Your task to perform on an android device: Go to Google Image 0: 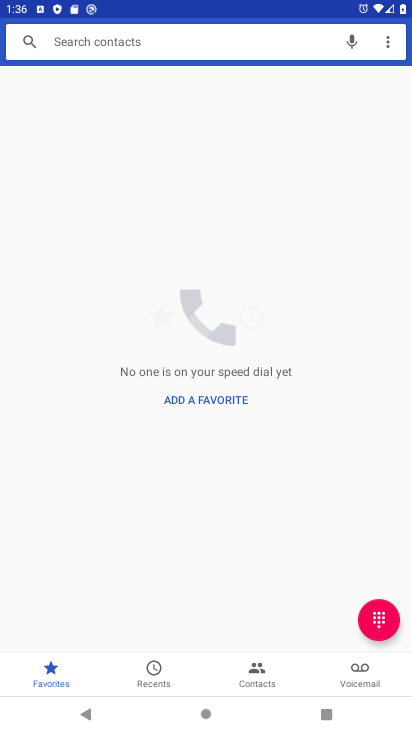
Step 0: press home button
Your task to perform on an android device: Go to Google Image 1: 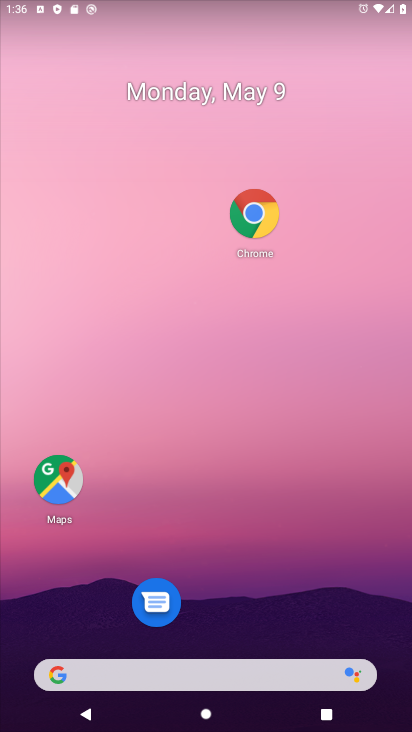
Step 1: click (345, 522)
Your task to perform on an android device: Go to Google Image 2: 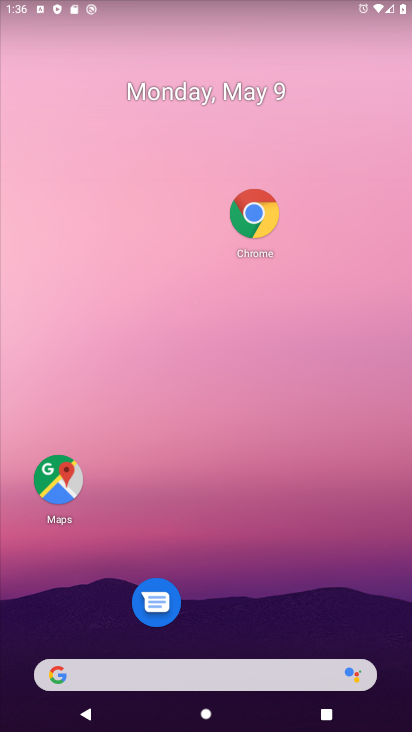
Step 2: click (221, 668)
Your task to perform on an android device: Go to Google Image 3: 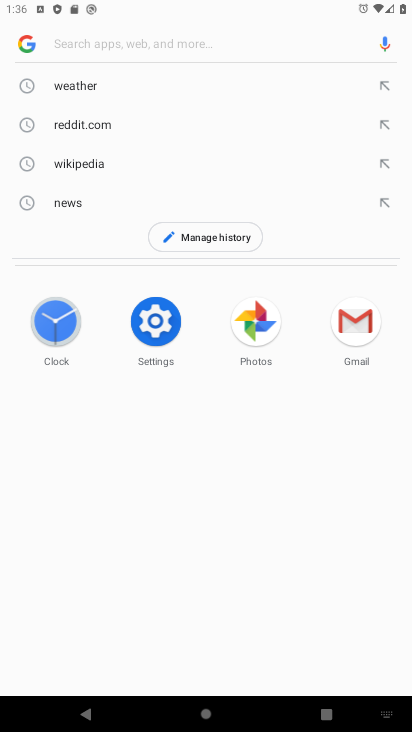
Step 3: type "google.com"
Your task to perform on an android device: Go to Google Image 4: 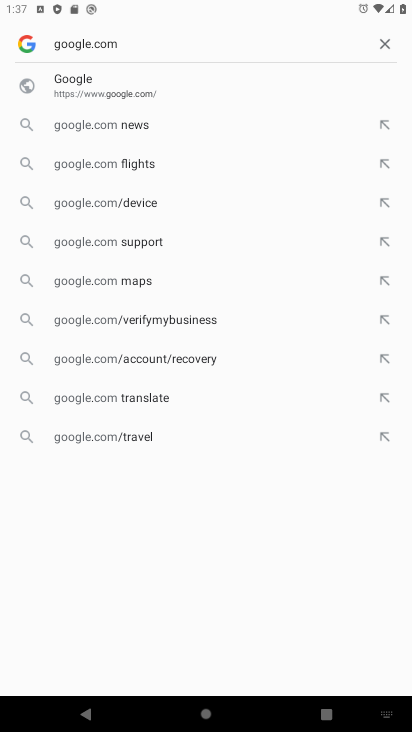
Step 4: click (237, 96)
Your task to perform on an android device: Go to Google Image 5: 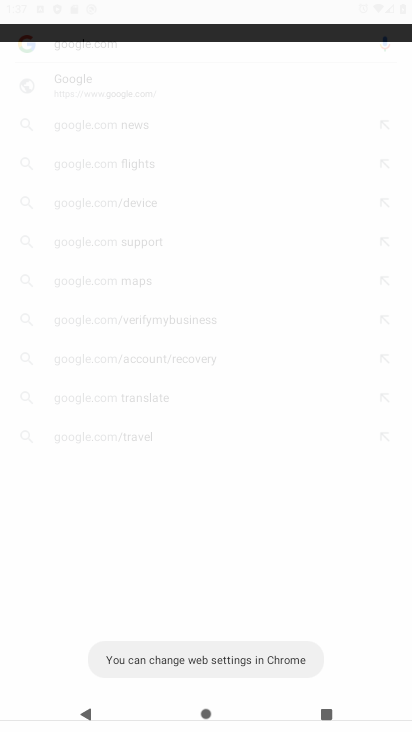
Step 5: task complete